Your task to perform on an android device: move a message to another label in the gmail app Image 0: 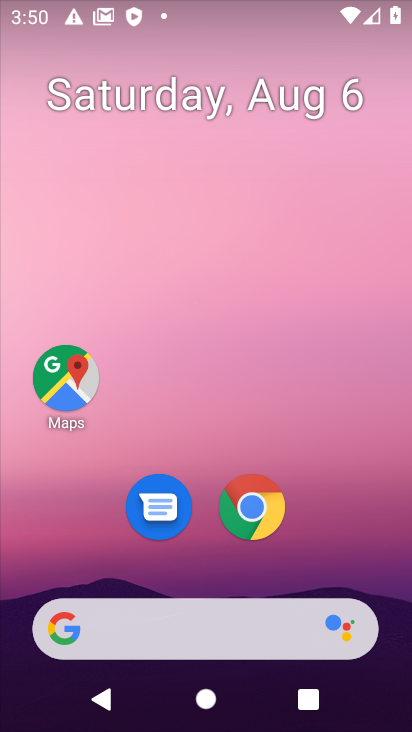
Step 0: drag from (363, 519) to (342, 181)
Your task to perform on an android device: move a message to another label in the gmail app Image 1: 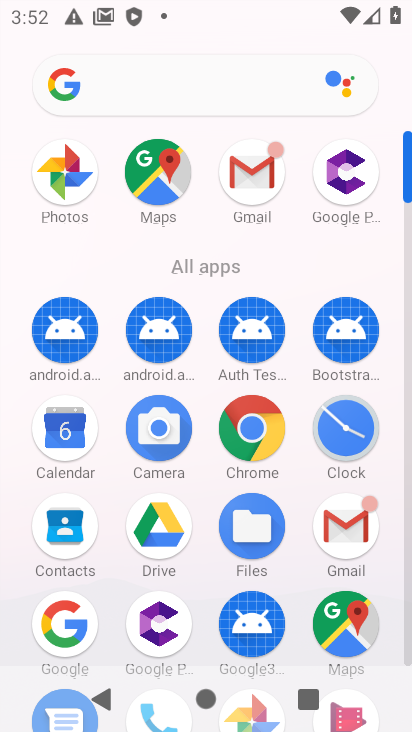
Step 1: click (254, 188)
Your task to perform on an android device: move a message to another label in the gmail app Image 2: 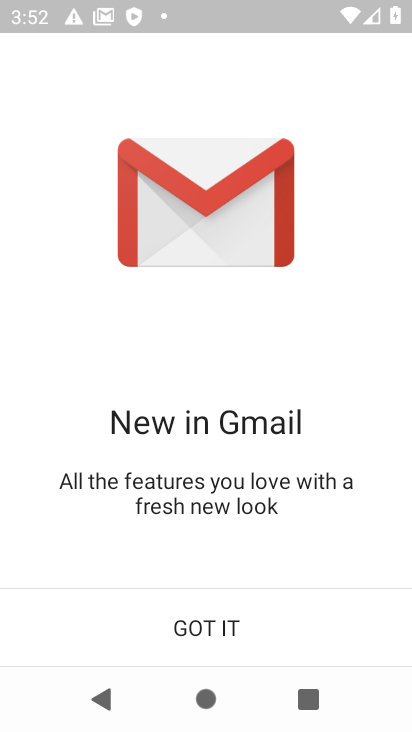
Step 2: click (217, 616)
Your task to perform on an android device: move a message to another label in the gmail app Image 3: 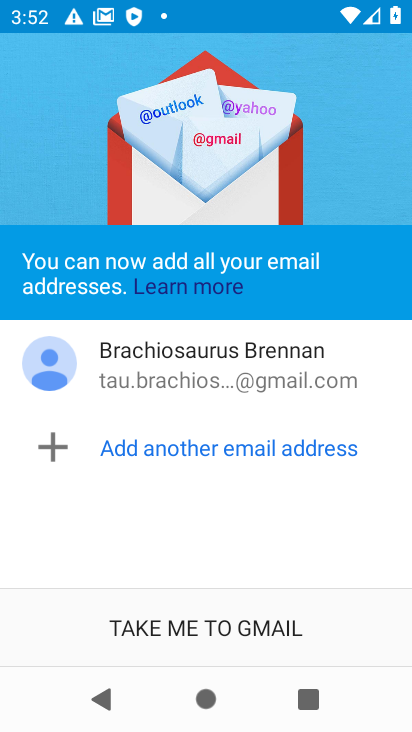
Step 3: click (249, 629)
Your task to perform on an android device: move a message to another label in the gmail app Image 4: 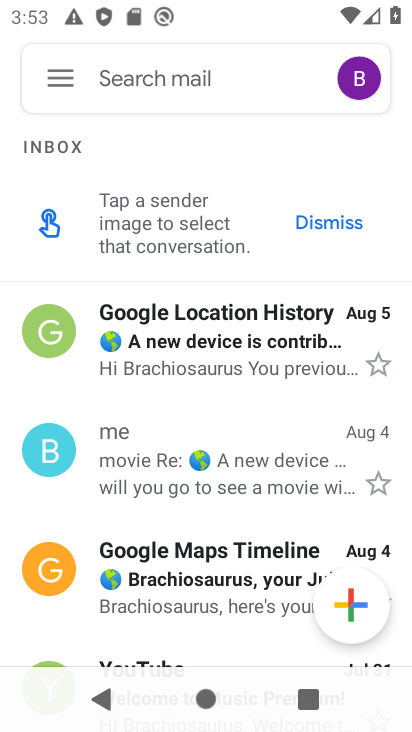
Step 4: task complete